Your task to perform on an android device: turn off smart reply in the gmail app Image 0: 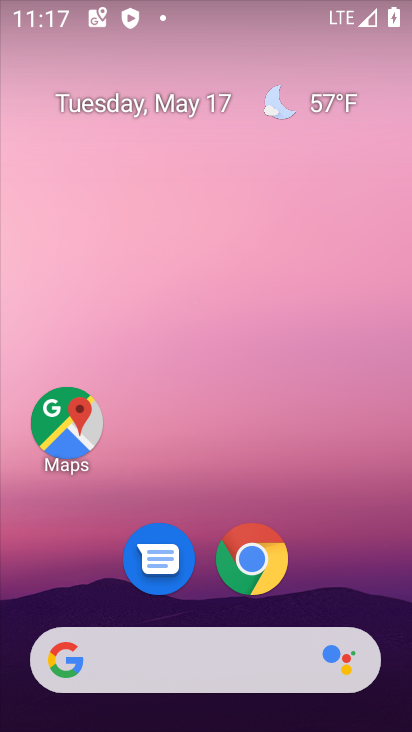
Step 0: drag from (366, 623) to (313, 0)
Your task to perform on an android device: turn off smart reply in the gmail app Image 1: 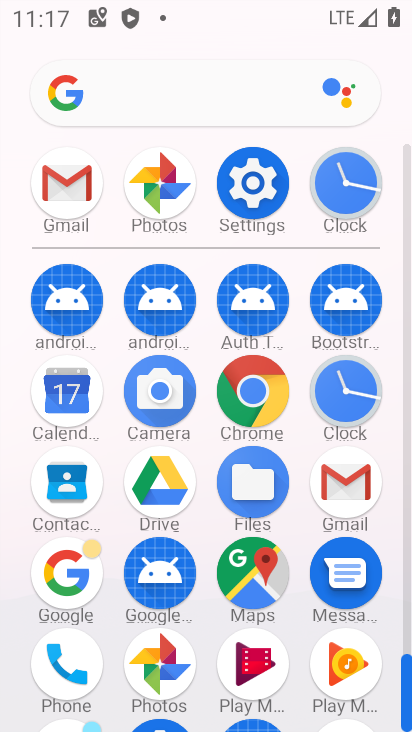
Step 1: click (56, 190)
Your task to perform on an android device: turn off smart reply in the gmail app Image 2: 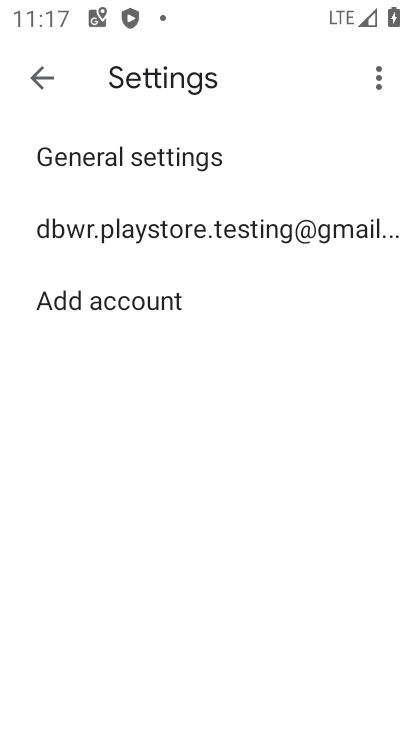
Step 2: click (62, 232)
Your task to perform on an android device: turn off smart reply in the gmail app Image 3: 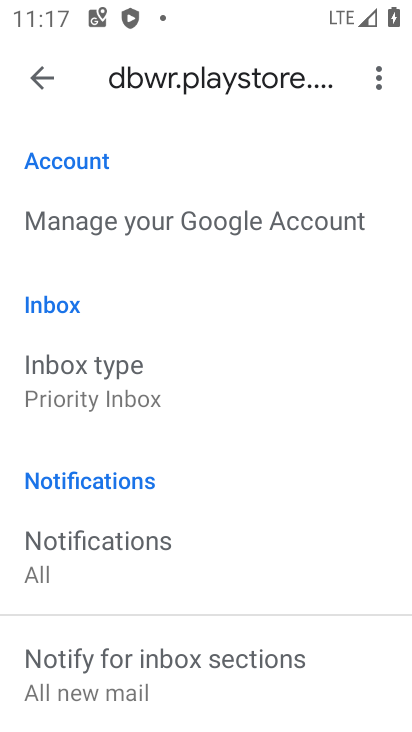
Step 3: drag from (215, 598) to (155, 205)
Your task to perform on an android device: turn off smart reply in the gmail app Image 4: 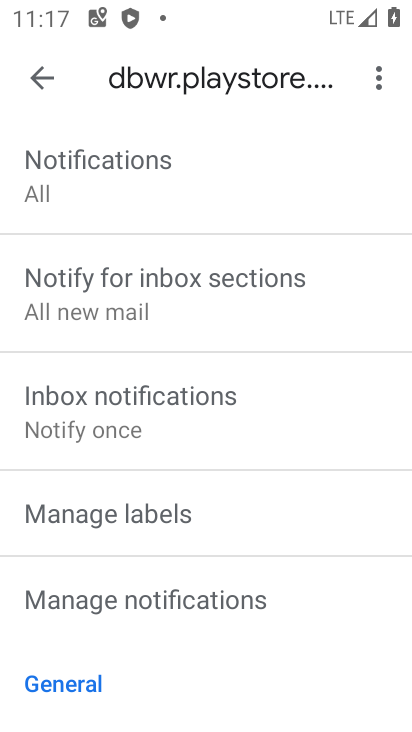
Step 4: drag from (198, 637) to (155, 310)
Your task to perform on an android device: turn off smart reply in the gmail app Image 5: 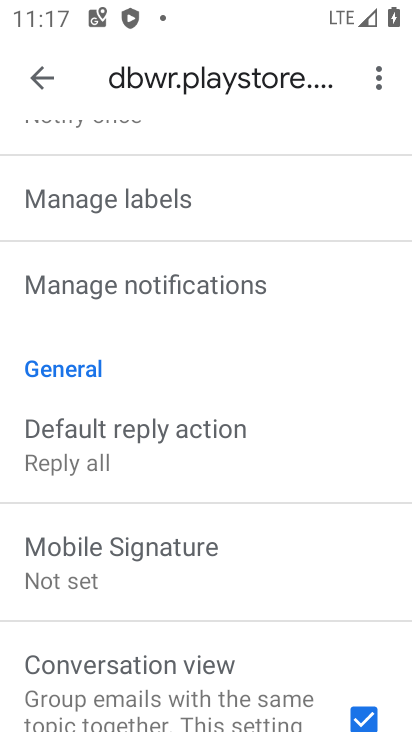
Step 5: drag from (170, 615) to (130, 258)
Your task to perform on an android device: turn off smart reply in the gmail app Image 6: 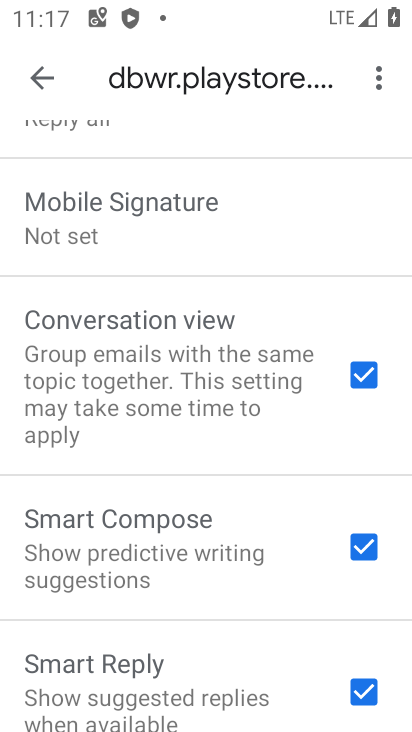
Step 6: click (365, 695)
Your task to perform on an android device: turn off smart reply in the gmail app Image 7: 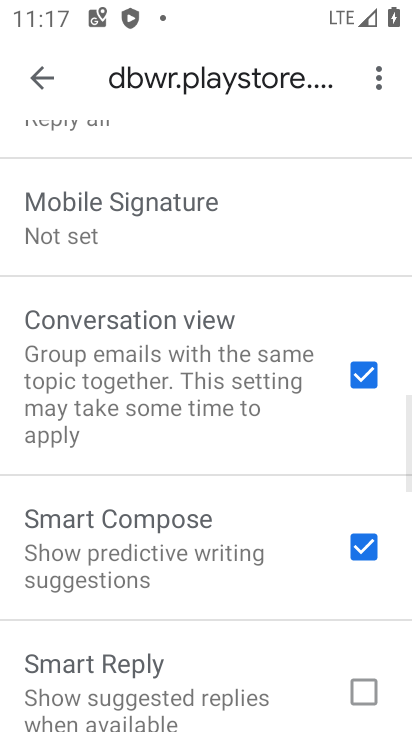
Step 7: task complete